Your task to perform on an android device: Show the shopping cart on bestbuy.com. Add lg ultragear to the cart on bestbuy.com Image 0: 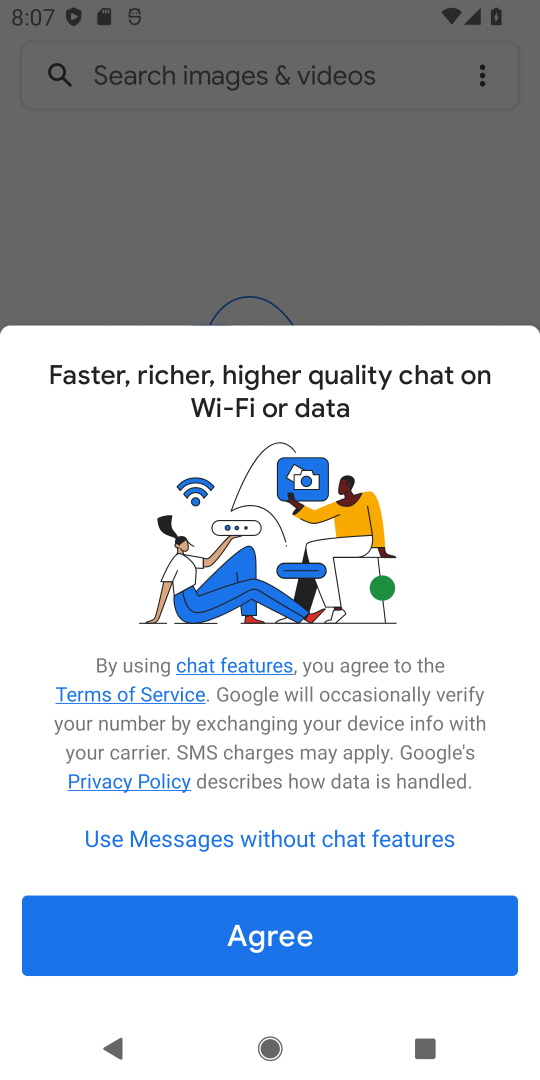
Step 0: press home button
Your task to perform on an android device: Show the shopping cart on bestbuy.com. Add lg ultragear to the cart on bestbuy.com Image 1: 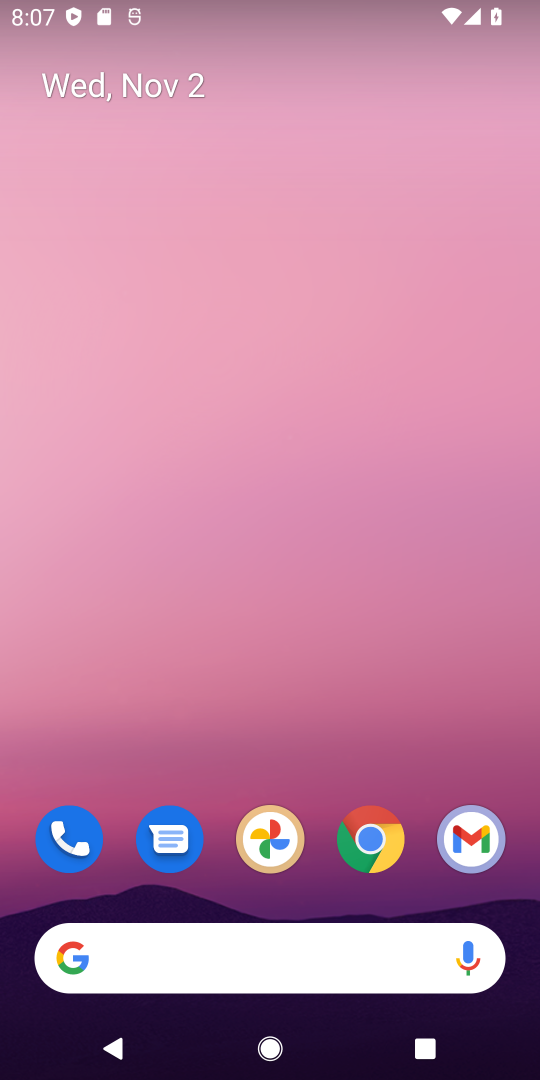
Step 1: click (376, 842)
Your task to perform on an android device: Show the shopping cart on bestbuy.com. Add lg ultragear to the cart on bestbuy.com Image 2: 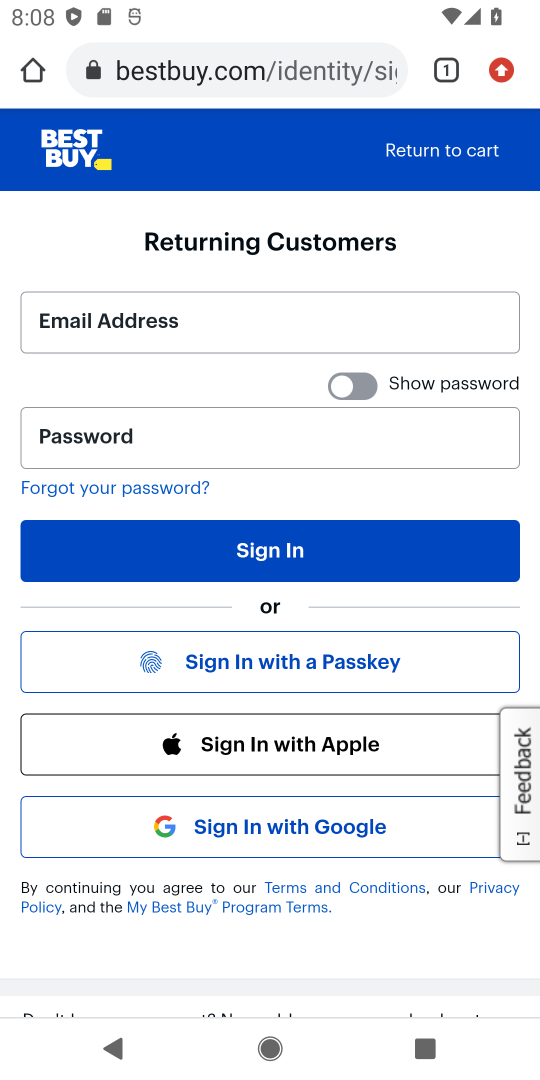
Step 2: click (267, 72)
Your task to perform on an android device: Show the shopping cart on bestbuy.com. Add lg ultragear to the cart on bestbuy.com Image 3: 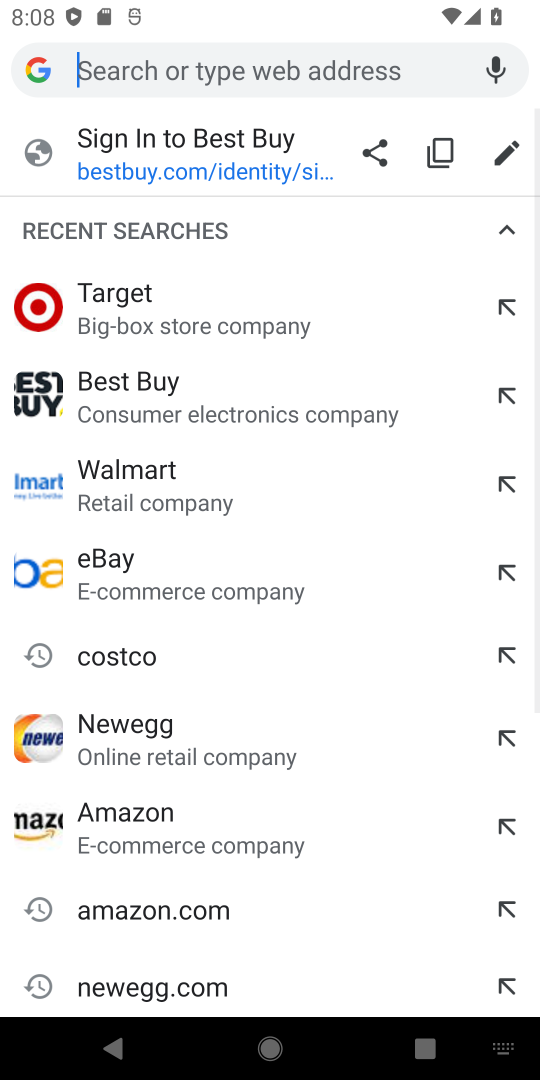
Step 3: click (269, 73)
Your task to perform on an android device: Show the shopping cart on bestbuy.com. Add lg ultragear to the cart on bestbuy.com Image 4: 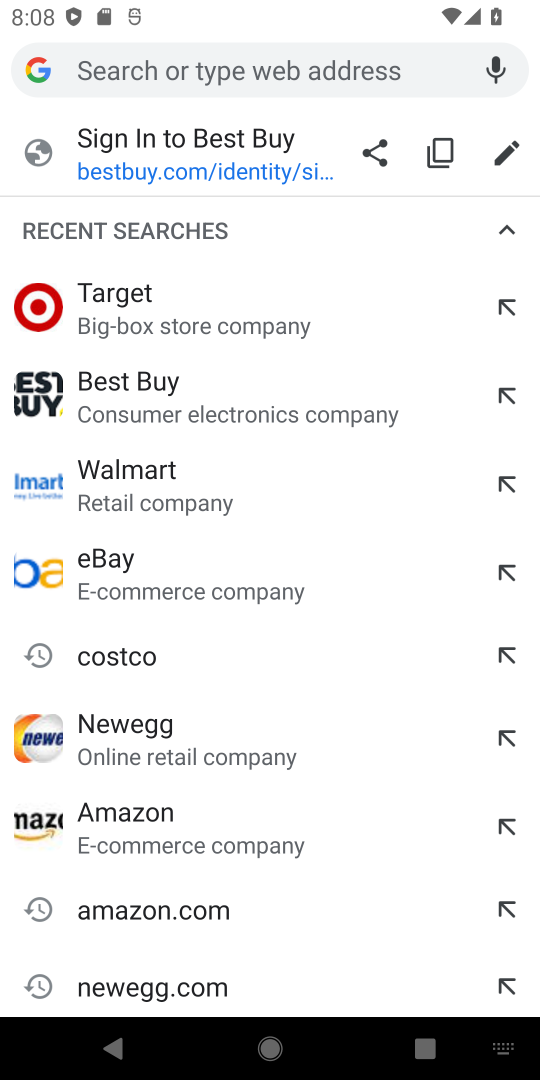
Step 4: type "bestbuy.com"
Your task to perform on an android device: Show the shopping cart on bestbuy.com. Add lg ultragear to the cart on bestbuy.com Image 5: 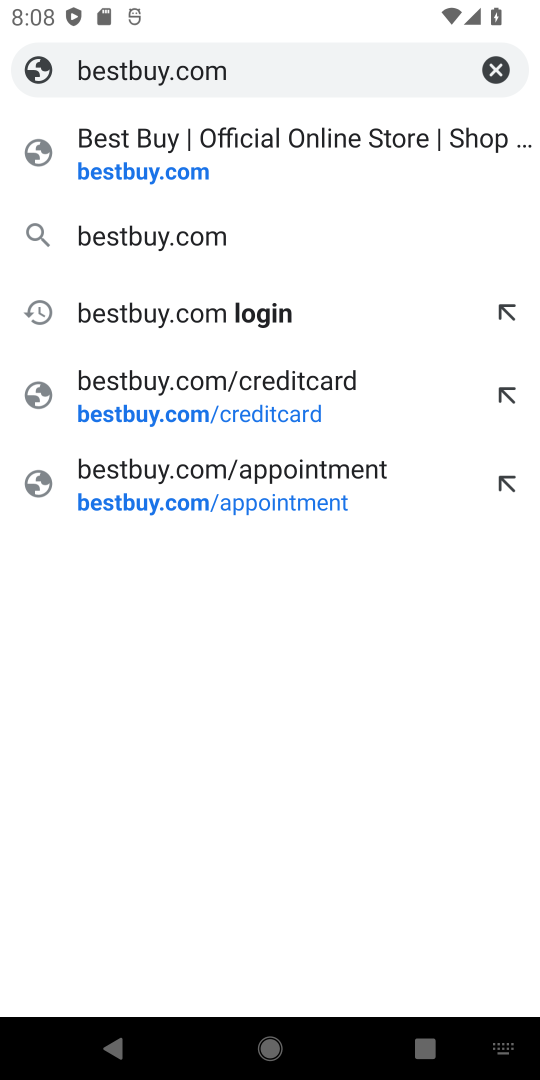
Step 5: click (196, 237)
Your task to perform on an android device: Show the shopping cart on bestbuy.com. Add lg ultragear to the cart on bestbuy.com Image 6: 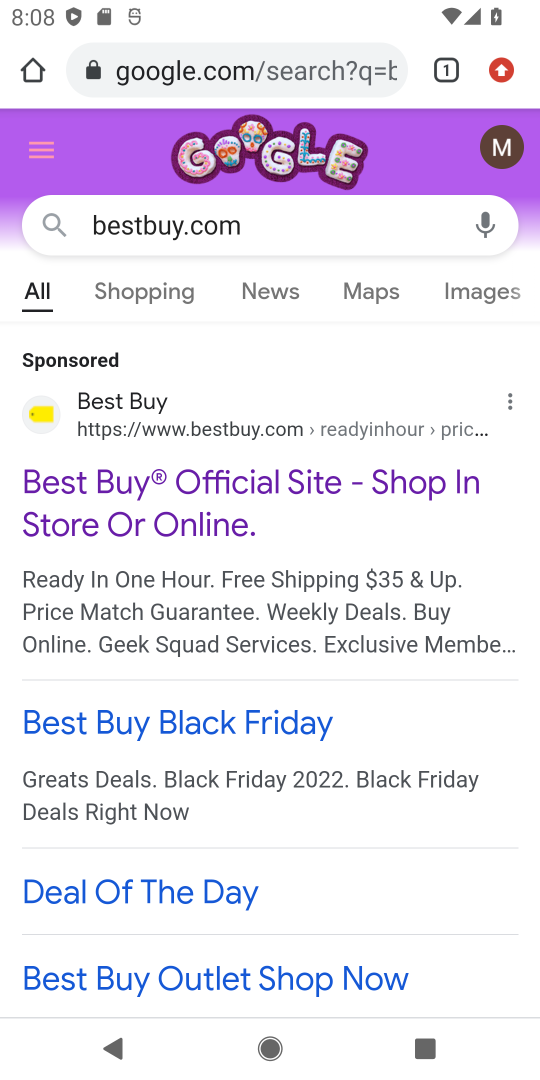
Step 6: drag from (295, 842) to (348, 475)
Your task to perform on an android device: Show the shopping cart on bestbuy.com. Add lg ultragear to the cart on bestbuy.com Image 7: 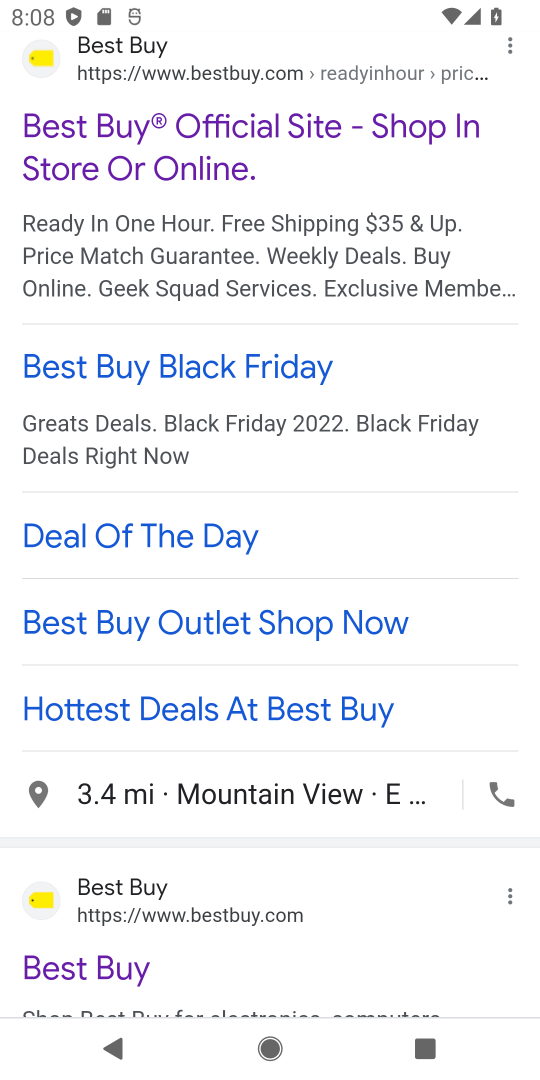
Step 7: drag from (232, 880) to (329, 419)
Your task to perform on an android device: Show the shopping cart on bestbuy.com. Add lg ultragear to the cart on bestbuy.com Image 8: 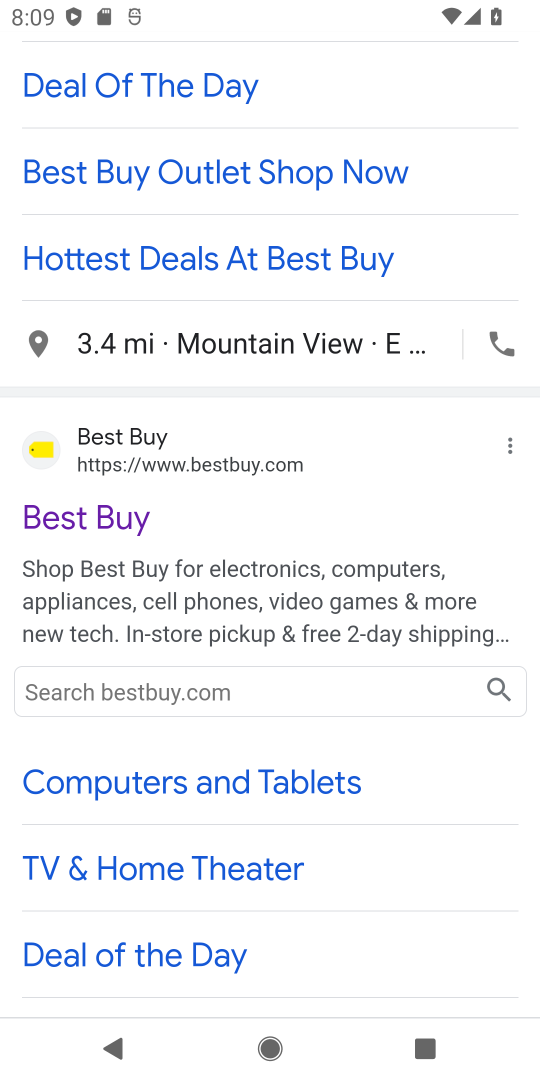
Step 8: click (167, 495)
Your task to perform on an android device: Show the shopping cart on bestbuy.com. Add lg ultragear to the cart on bestbuy.com Image 9: 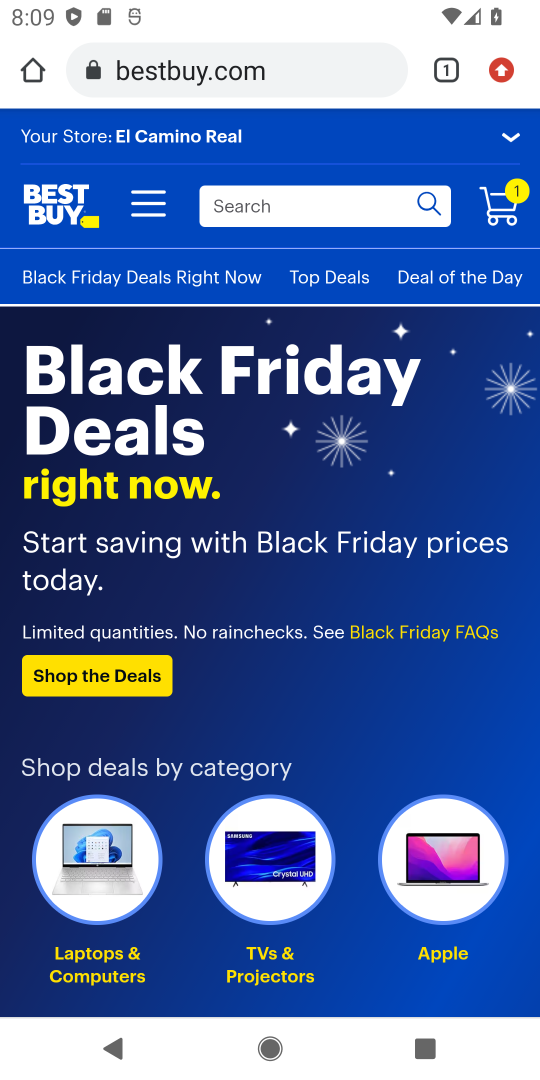
Step 9: click (497, 199)
Your task to perform on an android device: Show the shopping cart on bestbuy.com. Add lg ultragear to the cart on bestbuy.com Image 10: 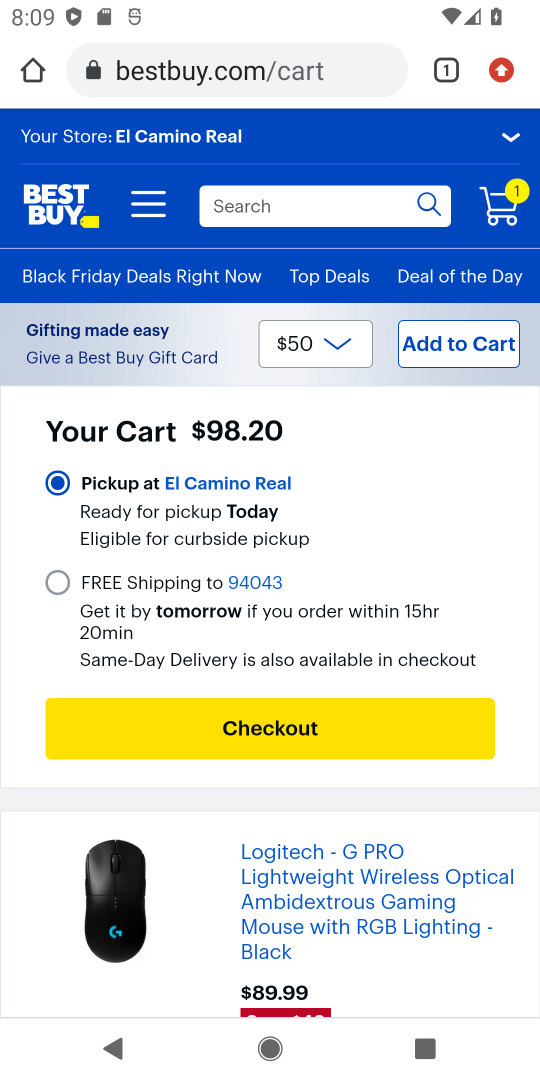
Step 10: click (249, 202)
Your task to perform on an android device: Show the shopping cart on bestbuy.com. Add lg ultragear to the cart on bestbuy.com Image 11: 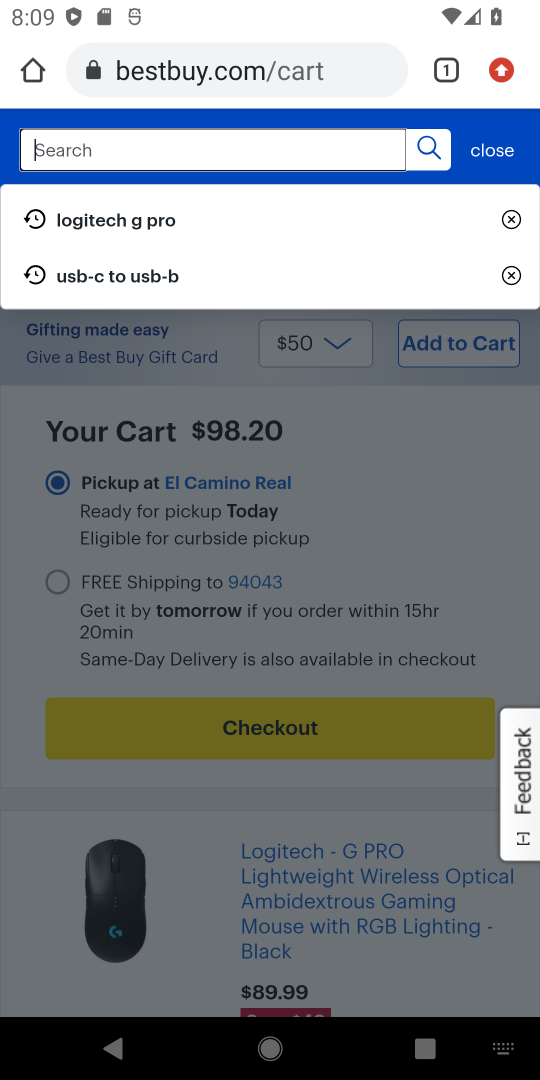
Step 11: type "lg ultragear "
Your task to perform on an android device: Show the shopping cart on bestbuy.com. Add lg ultragear to the cart on bestbuy.com Image 12: 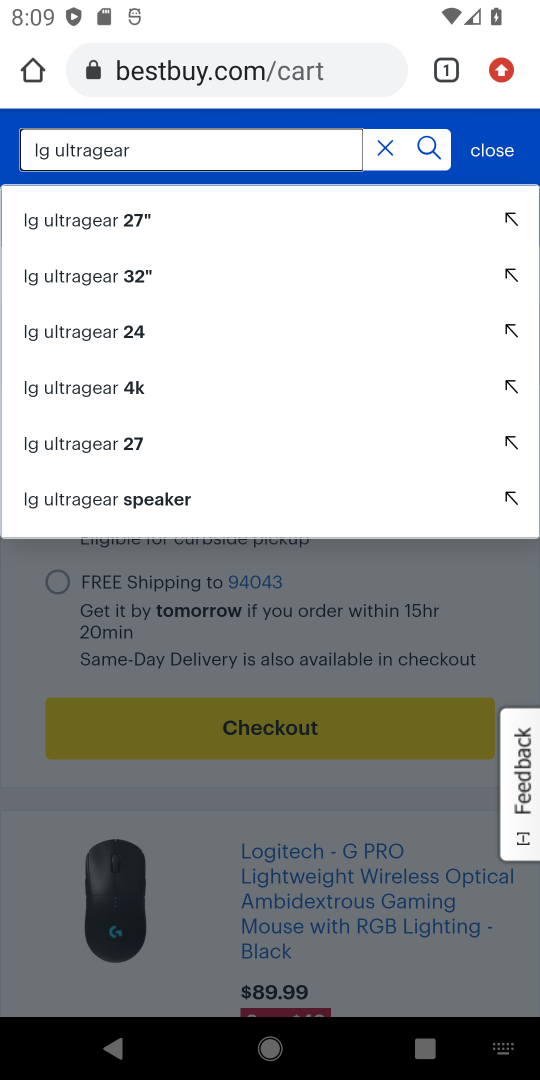
Step 12: click (435, 148)
Your task to perform on an android device: Show the shopping cart on bestbuy.com. Add lg ultragear to the cart on bestbuy.com Image 13: 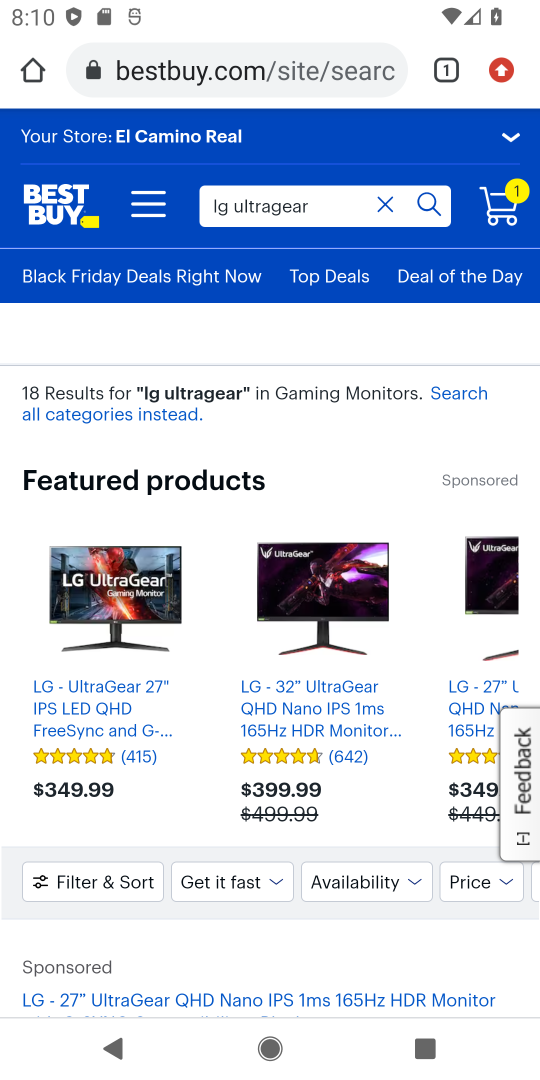
Step 13: drag from (229, 950) to (263, 405)
Your task to perform on an android device: Show the shopping cart on bestbuy.com. Add lg ultragear to the cart on bestbuy.com Image 14: 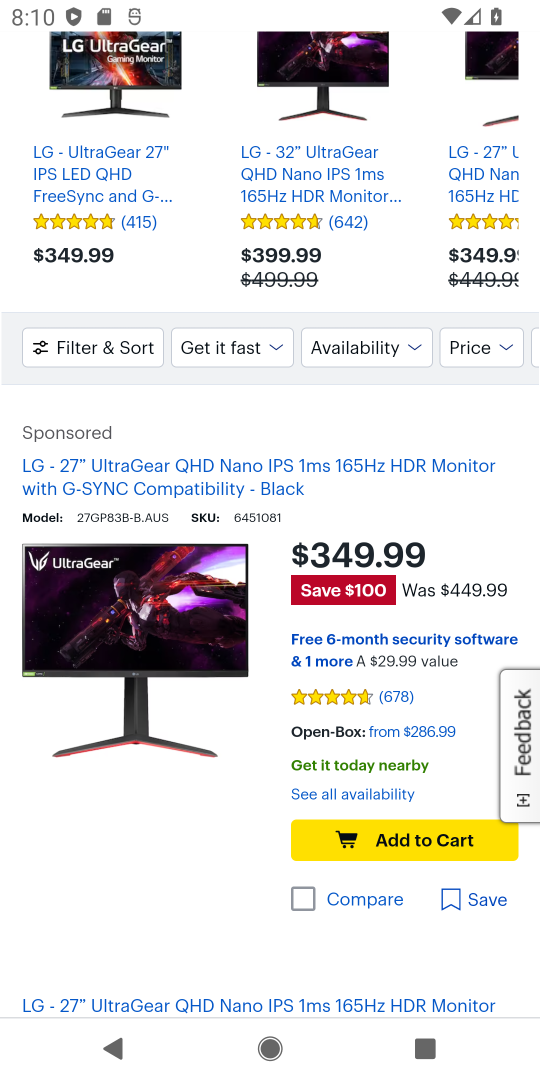
Step 14: click (404, 845)
Your task to perform on an android device: Show the shopping cart on bestbuy.com. Add lg ultragear to the cart on bestbuy.com Image 15: 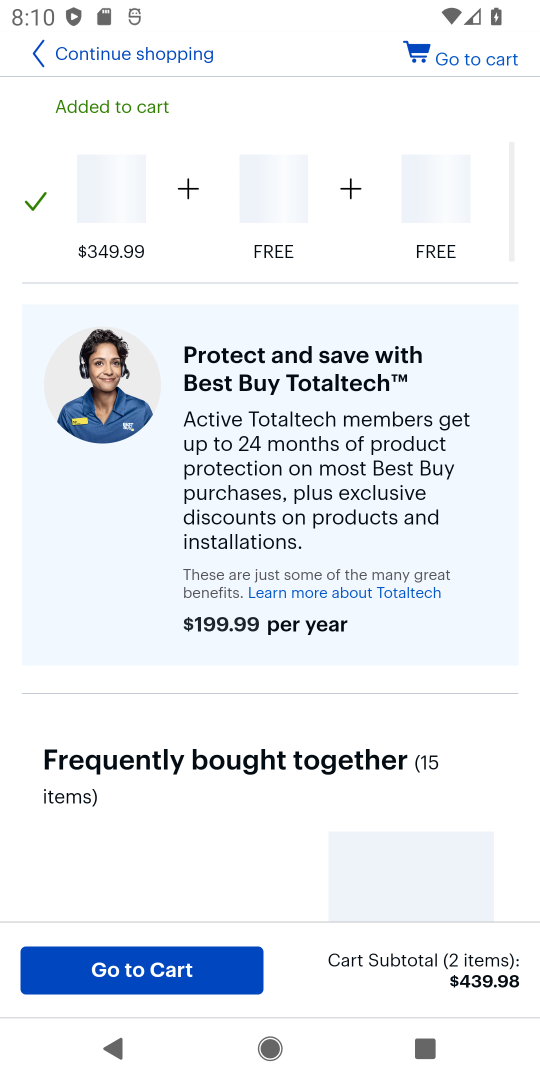
Step 15: click (128, 964)
Your task to perform on an android device: Show the shopping cart on bestbuy.com. Add lg ultragear to the cart on bestbuy.com Image 16: 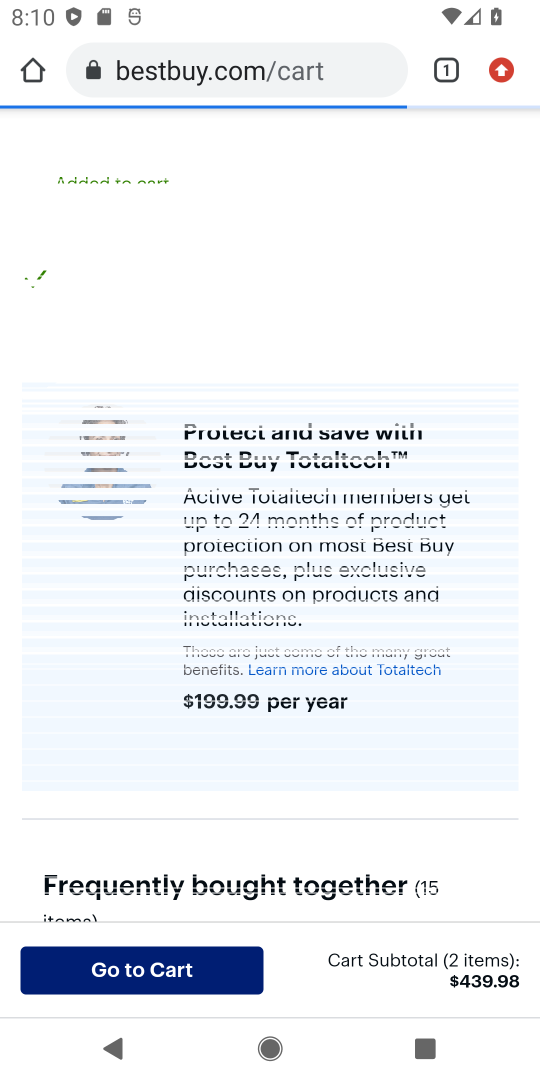
Step 16: task complete